Your task to perform on an android device: Show me recent news Image 0: 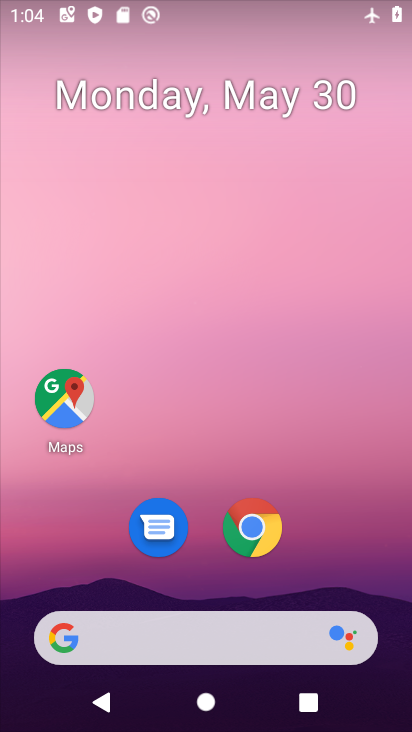
Step 0: drag from (214, 590) to (185, 12)
Your task to perform on an android device: Show me recent news Image 1: 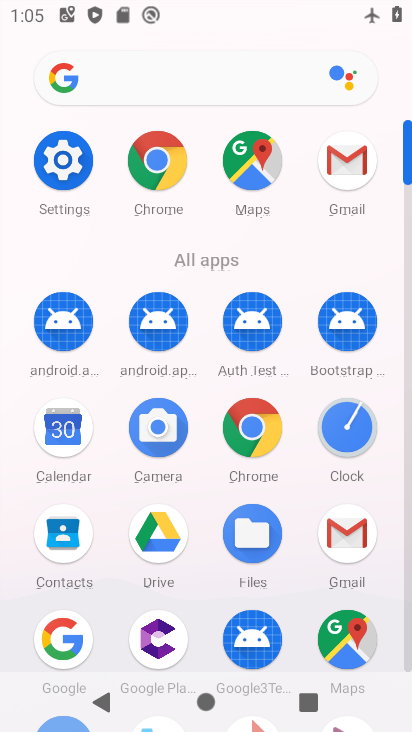
Step 1: click (189, 86)
Your task to perform on an android device: Show me recent news Image 2: 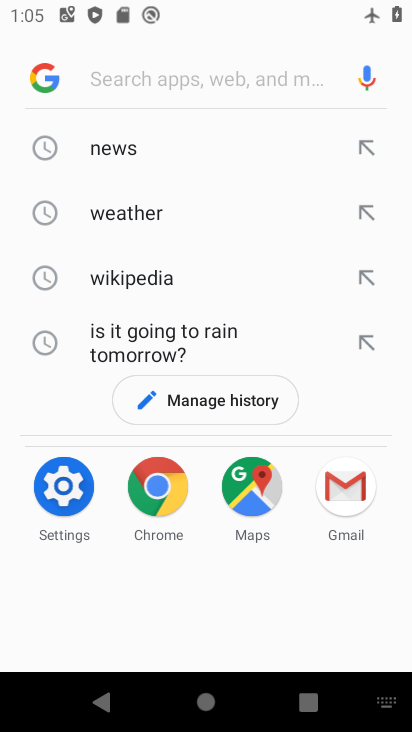
Step 2: type "recent news"
Your task to perform on an android device: Show me recent news Image 3: 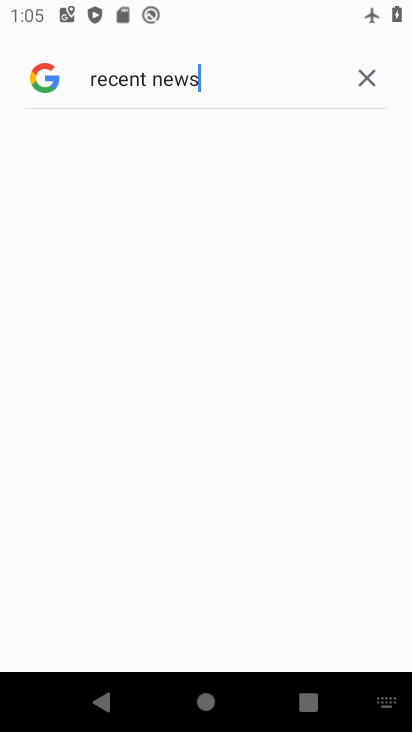
Step 3: task complete